Your task to perform on an android device: add a label to a message in the gmail app Image 0: 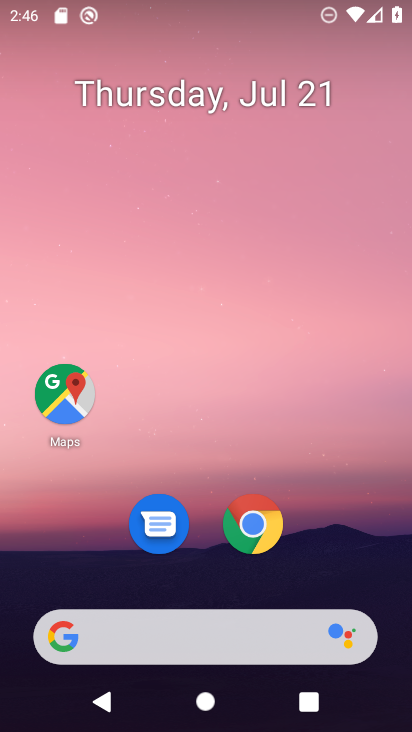
Step 0: drag from (212, 610) to (189, 106)
Your task to perform on an android device: add a label to a message in the gmail app Image 1: 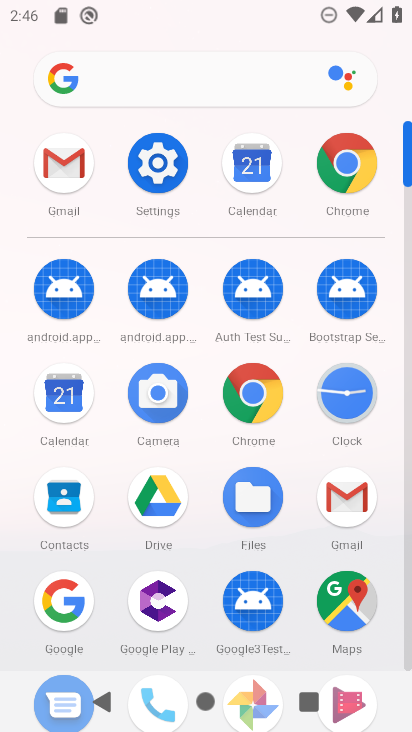
Step 1: click (338, 495)
Your task to perform on an android device: add a label to a message in the gmail app Image 2: 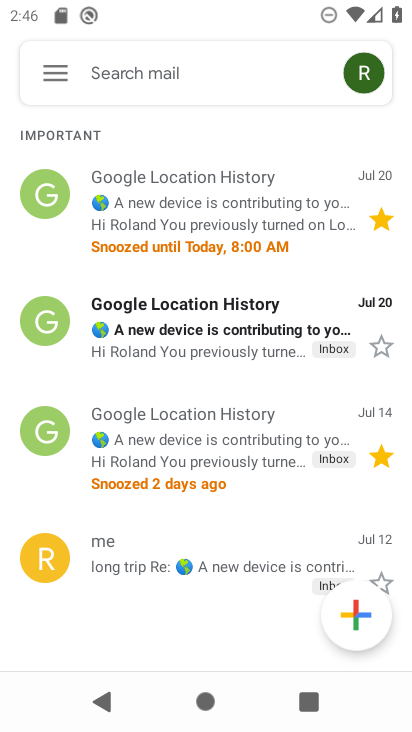
Step 2: click (264, 192)
Your task to perform on an android device: add a label to a message in the gmail app Image 3: 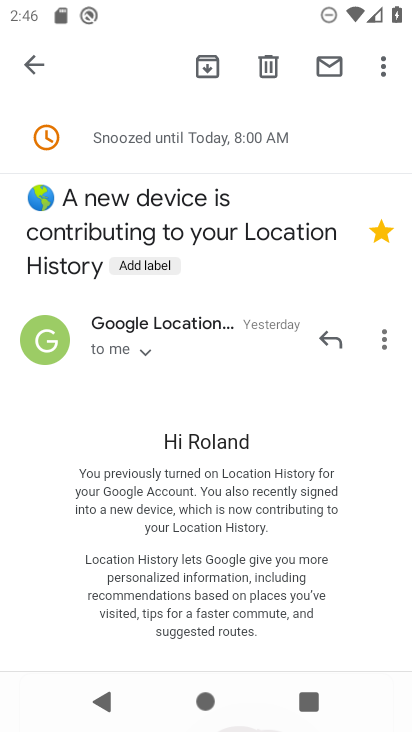
Step 3: click (149, 265)
Your task to perform on an android device: add a label to a message in the gmail app Image 4: 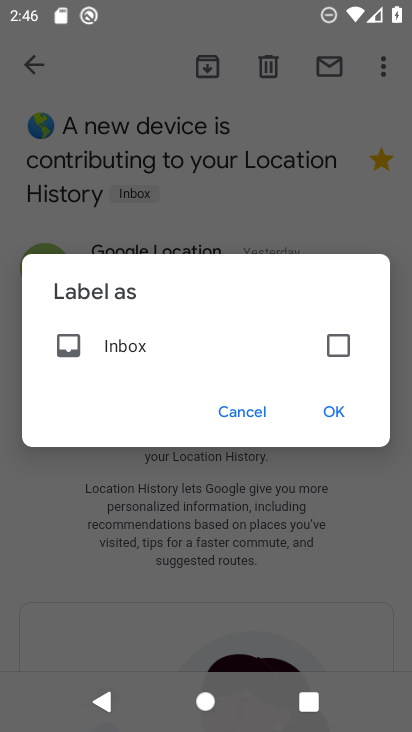
Step 4: click (344, 342)
Your task to perform on an android device: add a label to a message in the gmail app Image 5: 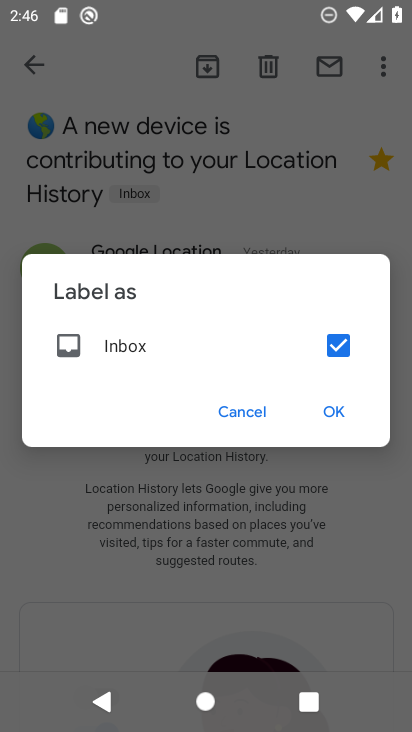
Step 5: click (338, 409)
Your task to perform on an android device: add a label to a message in the gmail app Image 6: 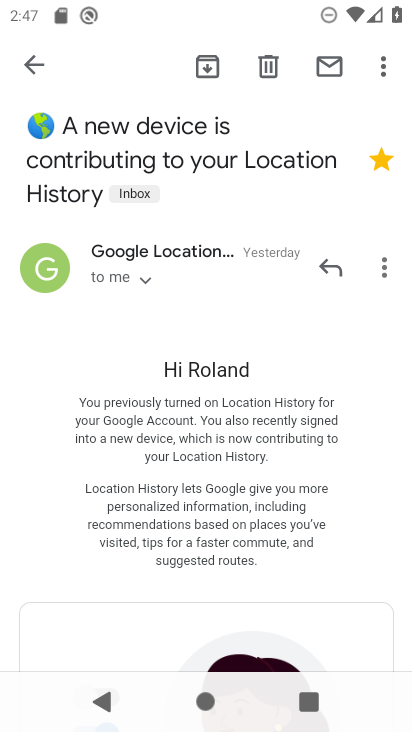
Step 6: task complete